Your task to perform on an android device: Open the Play Movies app and select the watchlist tab. Image 0: 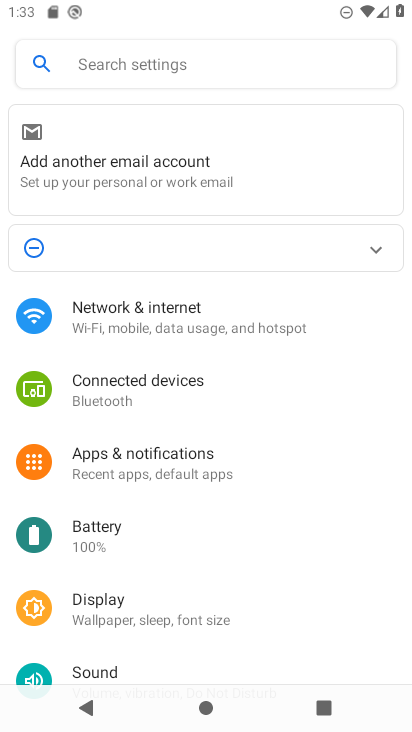
Step 0: press home button
Your task to perform on an android device: Open the Play Movies app and select the watchlist tab. Image 1: 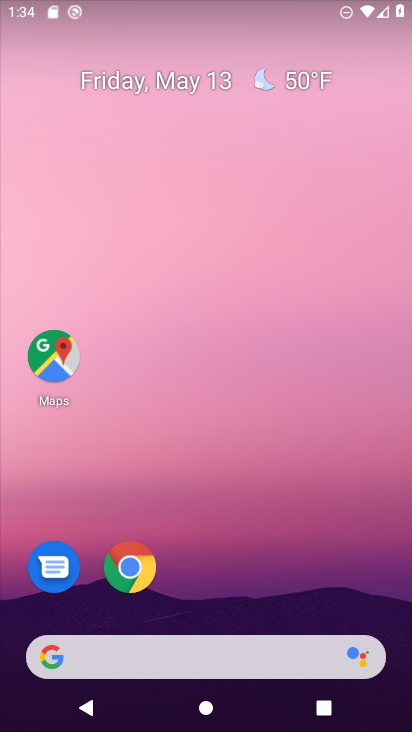
Step 1: drag from (239, 616) to (228, 256)
Your task to perform on an android device: Open the Play Movies app and select the watchlist tab. Image 2: 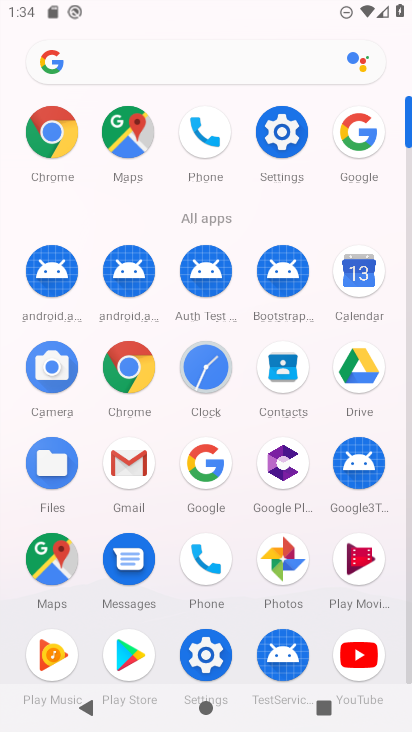
Step 2: click (369, 571)
Your task to perform on an android device: Open the Play Movies app and select the watchlist tab. Image 3: 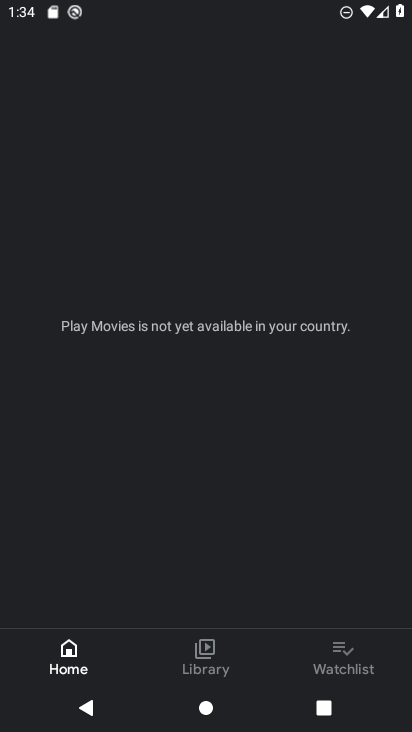
Step 3: click (332, 667)
Your task to perform on an android device: Open the Play Movies app and select the watchlist tab. Image 4: 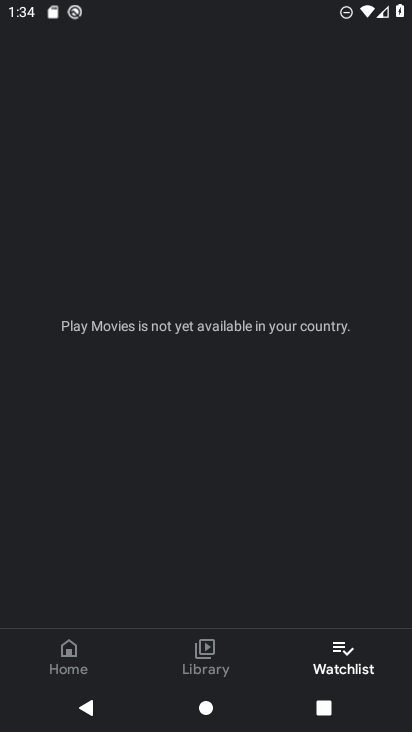
Step 4: task complete